Your task to perform on an android device: change the clock display to digital Image 0: 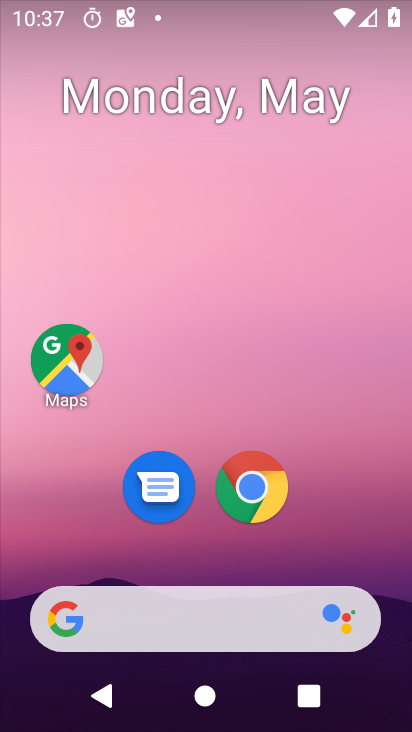
Step 0: drag from (343, 551) to (294, 176)
Your task to perform on an android device: change the clock display to digital Image 1: 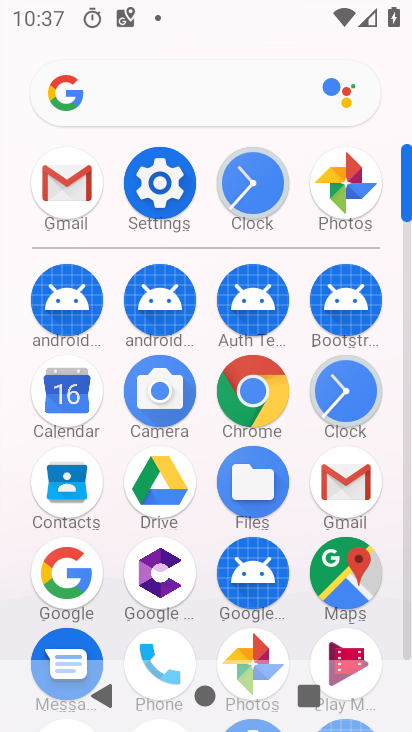
Step 1: click (348, 395)
Your task to perform on an android device: change the clock display to digital Image 2: 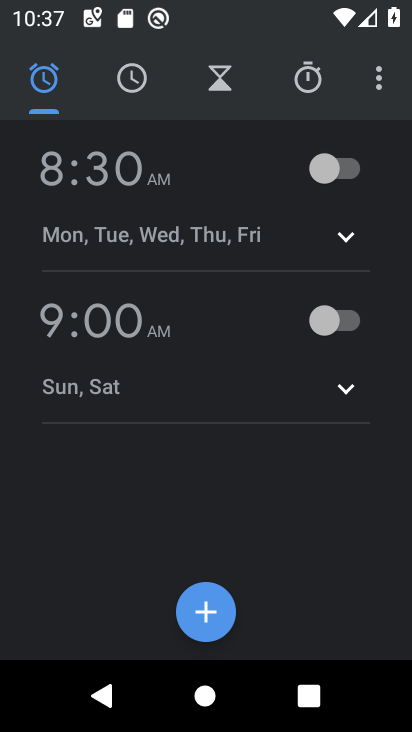
Step 2: click (376, 77)
Your task to perform on an android device: change the clock display to digital Image 3: 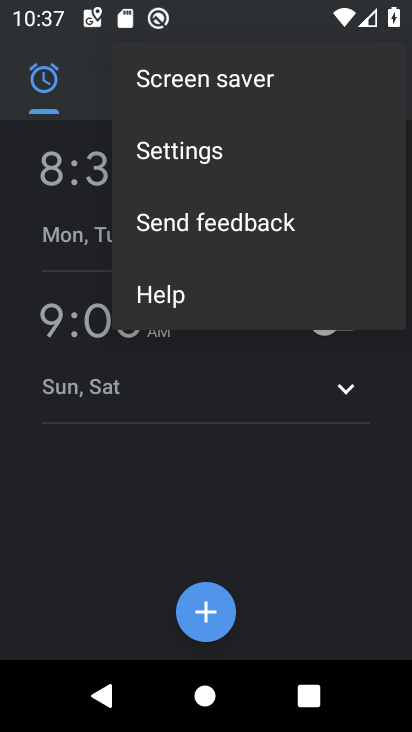
Step 3: click (235, 141)
Your task to perform on an android device: change the clock display to digital Image 4: 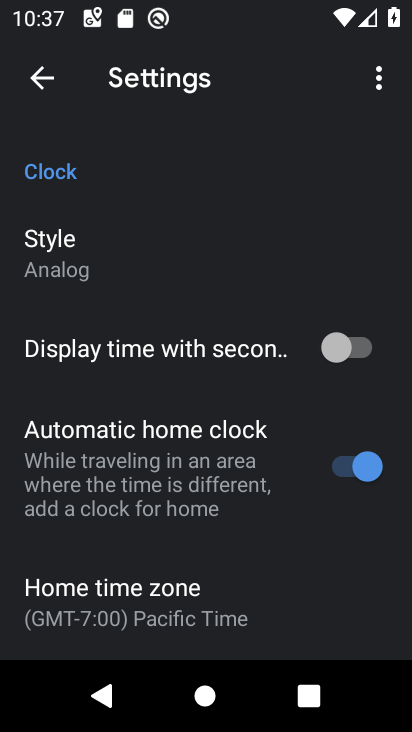
Step 4: click (70, 271)
Your task to perform on an android device: change the clock display to digital Image 5: 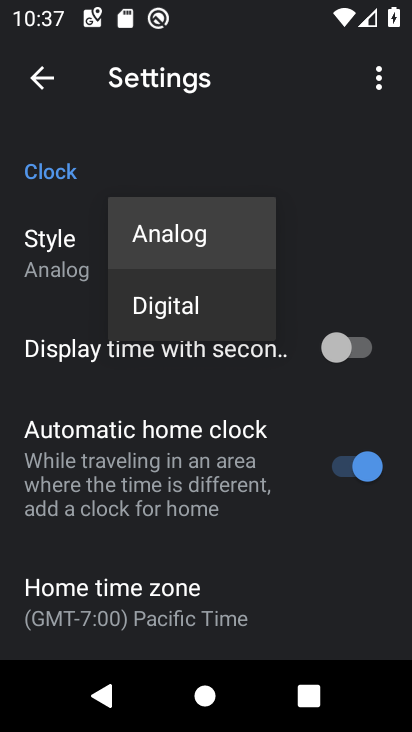
Step 5: click (188, 303)
Your task to perform on an android device: change the clock display to digital Image 6: 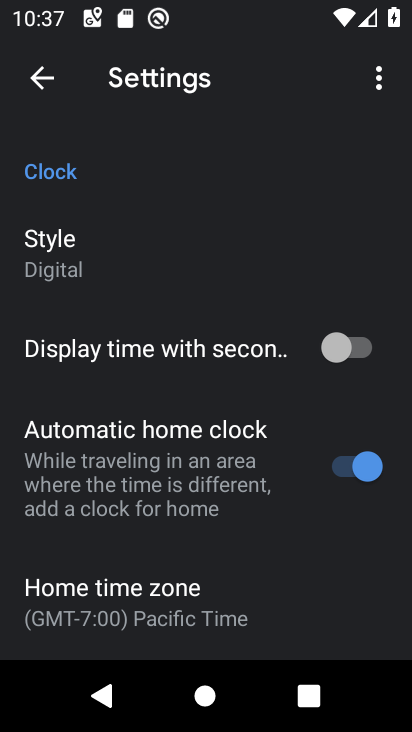
Step 6: task complete